Your task to perform on an android device: Go to privacy settings Image 0: 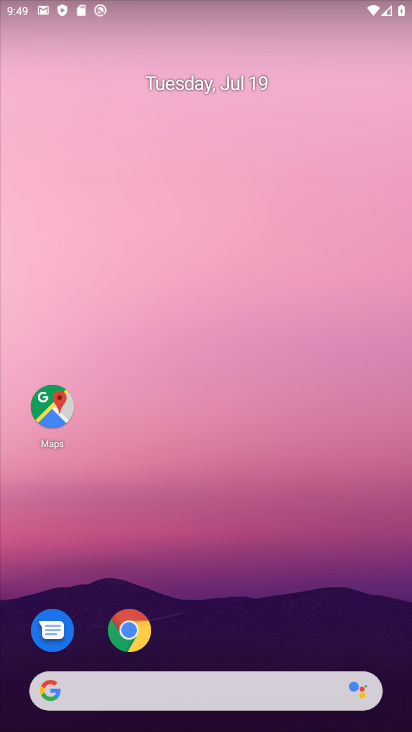
Step 0: drag from (271, 639) to (279, 168)
Your task to perform on an android device: Go to privacy settings Image 1: 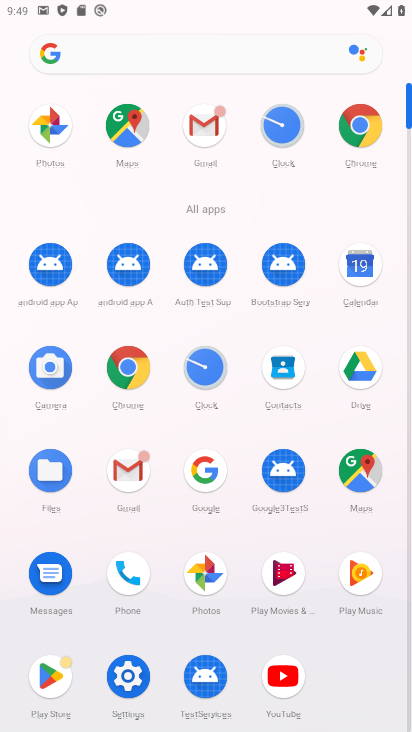
Step 1: click (356, 137)
Your task to perform on an android device: Go to privacy settings Image 2: 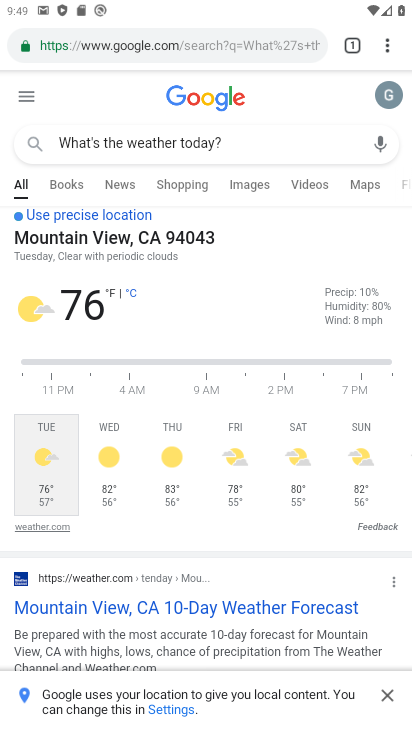
Step 2: click (389, 47)
Your task to perform on an android device: Go to privacy settings Image 3: 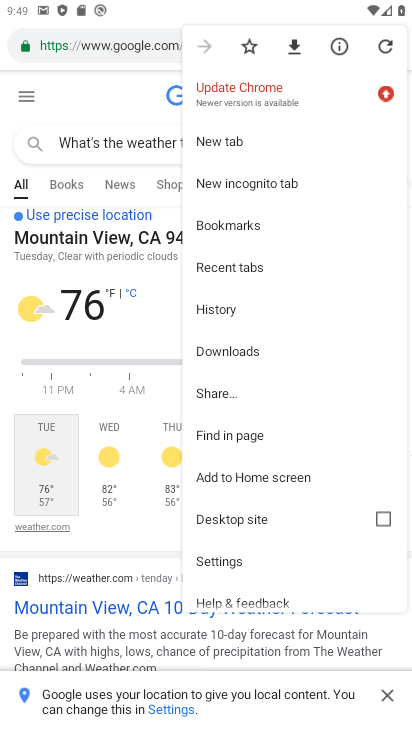
Step 3: click (252, 563)
Your task to perform on an android device: Go to privacy settings Image 4: 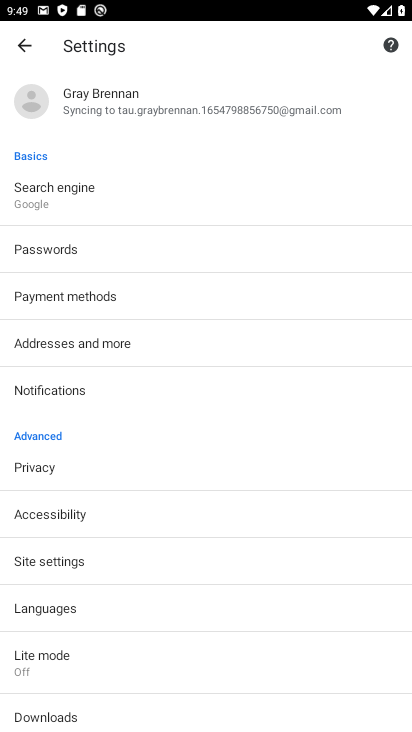
Step 4: click (141, 473)
Your task to perform on an android device: Go to privacy settings Image 5: 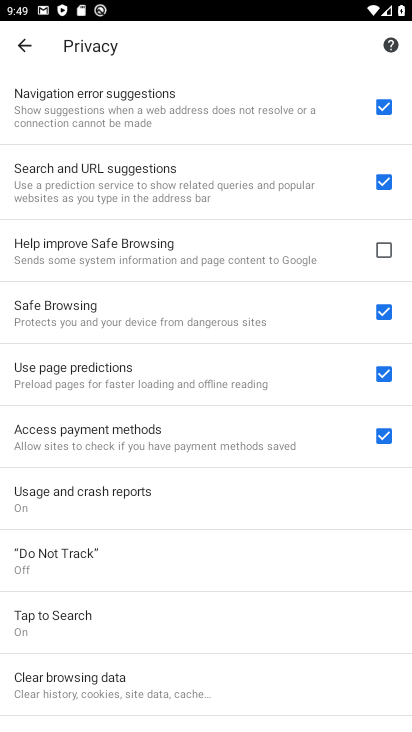
Step 5: task complete